Your task to perform on an android device: open a bookmark in the chrome app Image 0: 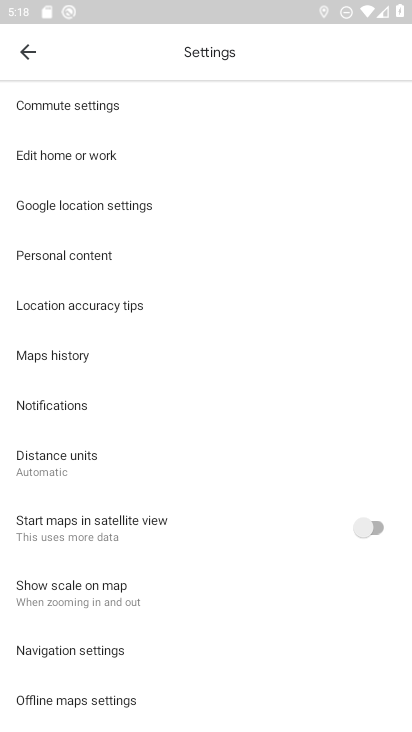
Step 0: press home button
Your task to perform on an android device: open a bookmark in the chrome app Image 1: 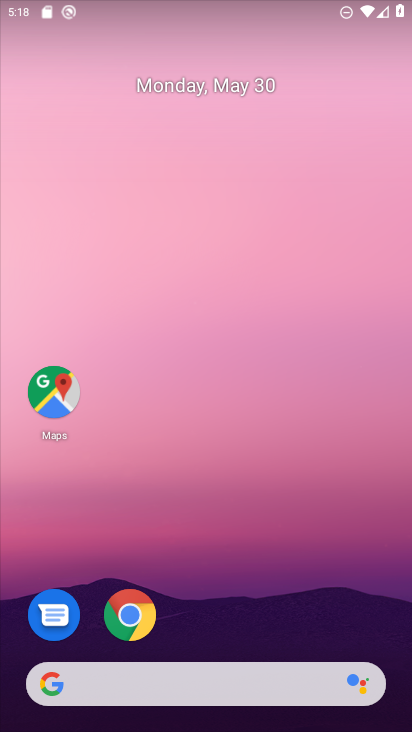
Step 1: drag from (206, 625) to (184, 82)
Your task to perform on an android device: open a bookmark in the chrome app Image 2: 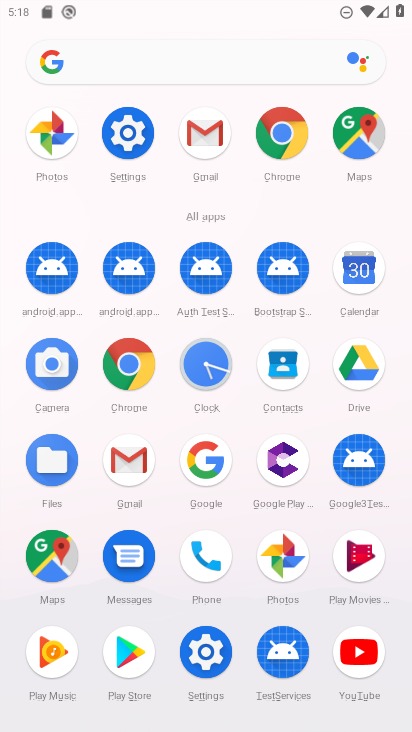
Step 2: click (274, 127)
Your task to perform on an android device: open a bookmark in the chrome app Image 3: 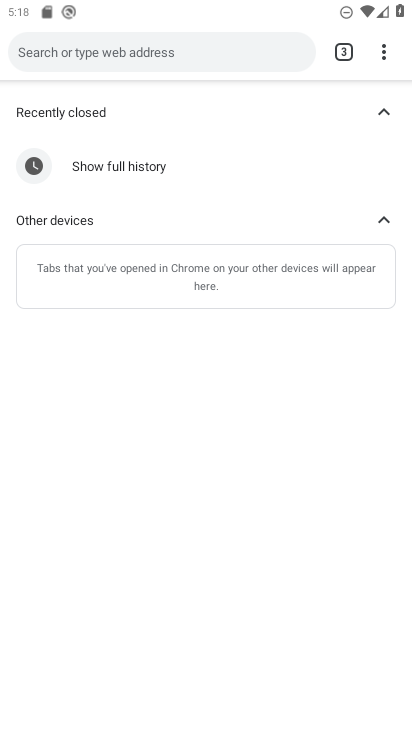
Step 3: click (381, 56)
Your task to perform on an android device: open a bookmark in the chrome app Image 4: 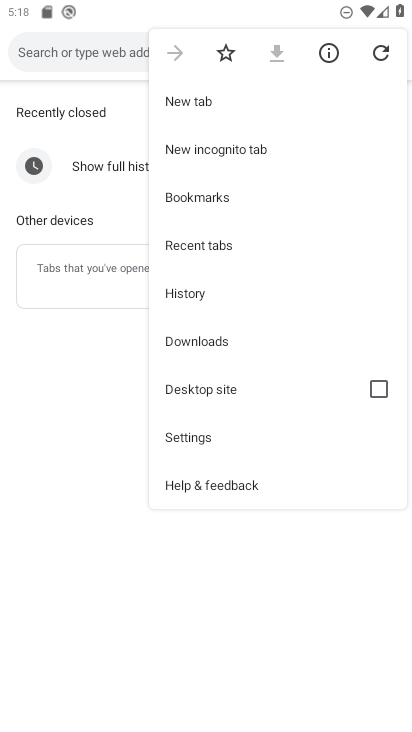
Step 4: click (168, 216)
Your task to perform on an android device: open a bookmark in the chrome app Image 5: 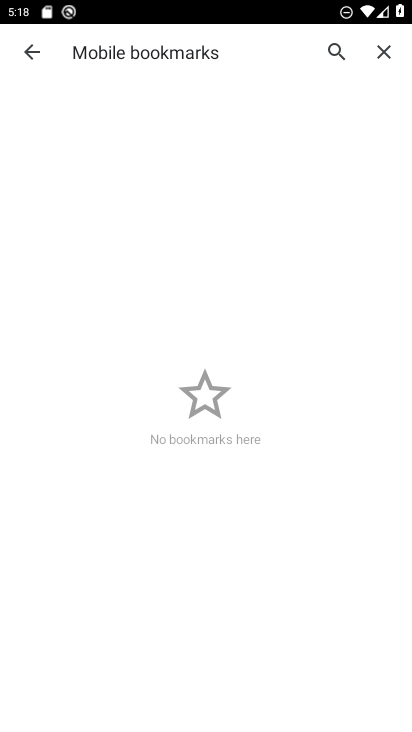
Step 5: task complete